Your task to perform on an android device: remove spam from my inbox in the gmail app Image 0: 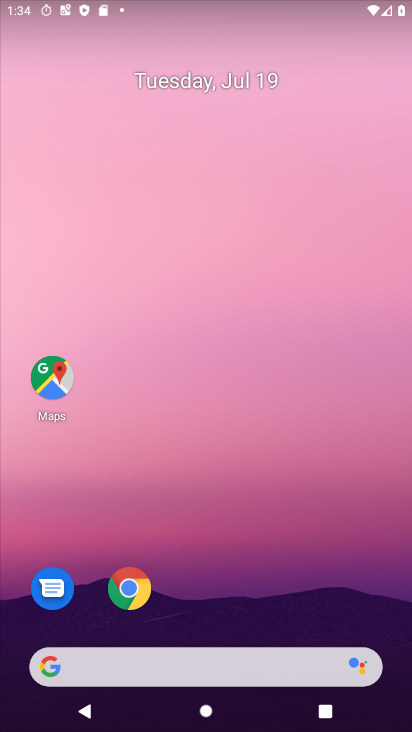
Step 0: drag from (43, 707) to (250, 158)
Your task to perform on an android device: remove spam from my inbox in the gmail app Image 1: 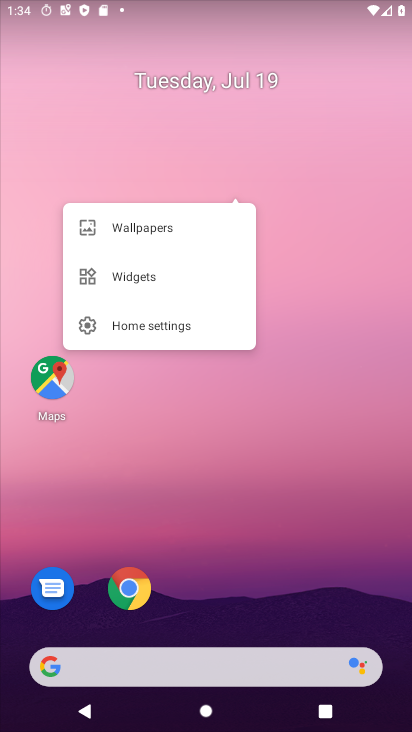
Step 1: drag from (68, 534) to (179, 0)
Your task to perform on an android device: remove spam from my inbox in the gmail app Image 2: 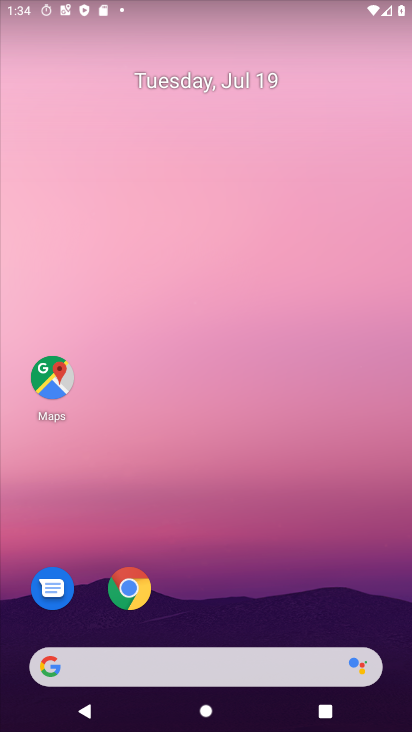
Step 2: drag from (40, 714) to (191, 247)
Your task to perform on an android device: remove spam from my inbox in the gmail app Image 3: 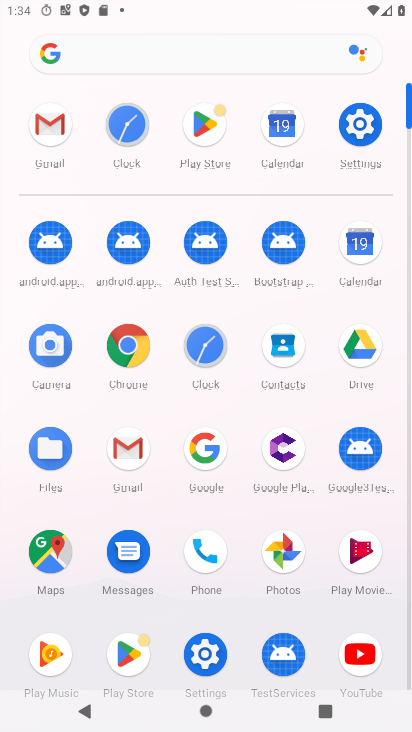
Step 3: click (121, 459)
Your task to perform on an android device: remove spam from my inbox in the gmail app Image 4: 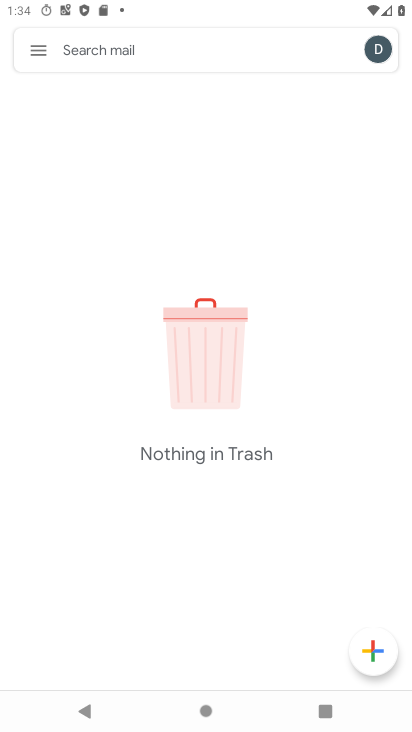
Step 4: click (29, 45)
Your task to perform on an android device: remove spam from my inbox in the gmail app Image 5: 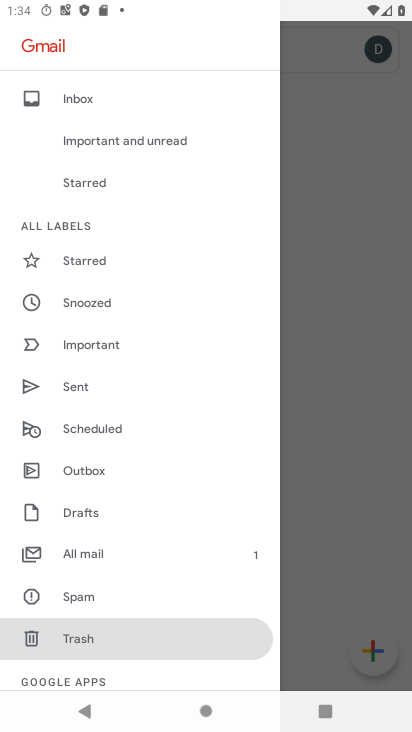
Step 5: click (101, 632)
Your task to perform on an android device: remove spam from my inbox in the gmail app Image 6: 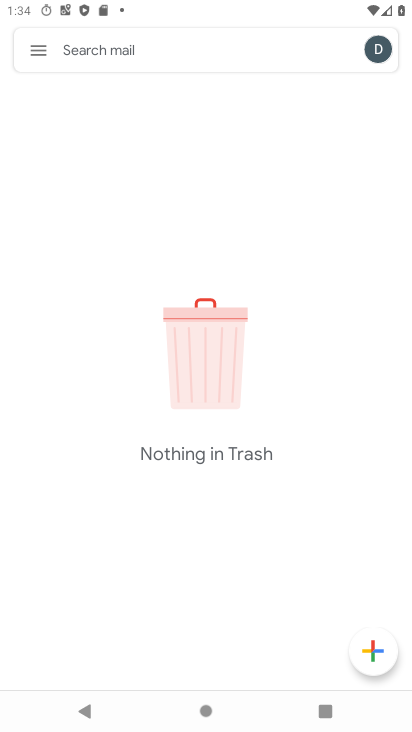
Step 6: task complete